Your task to perform on an android device: Search for flights from Zurich to Helsinki Image 0: 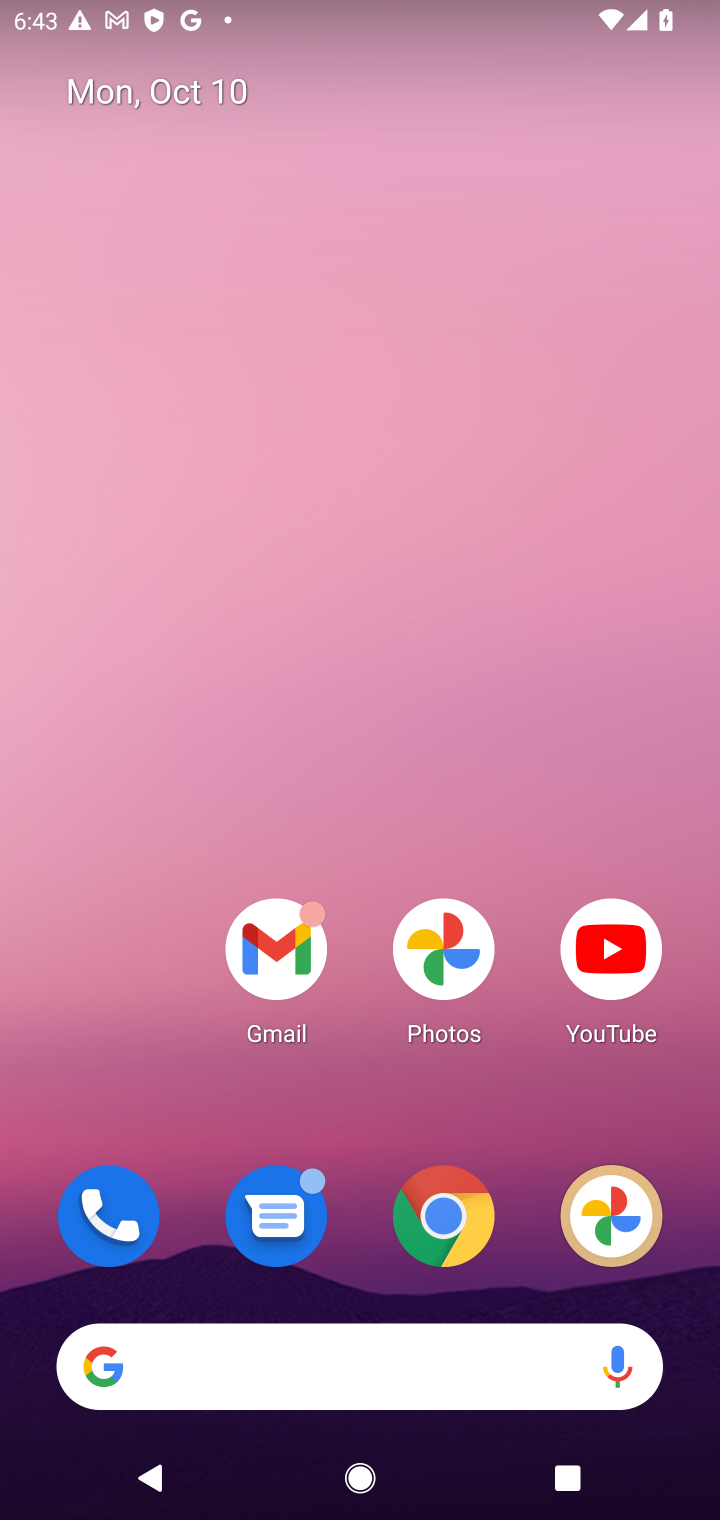
Step 0: drag from (403, 553) to (403, 198)
Your task to perform on an android device: Search for flights from Zurich to Helsinki Image 1: 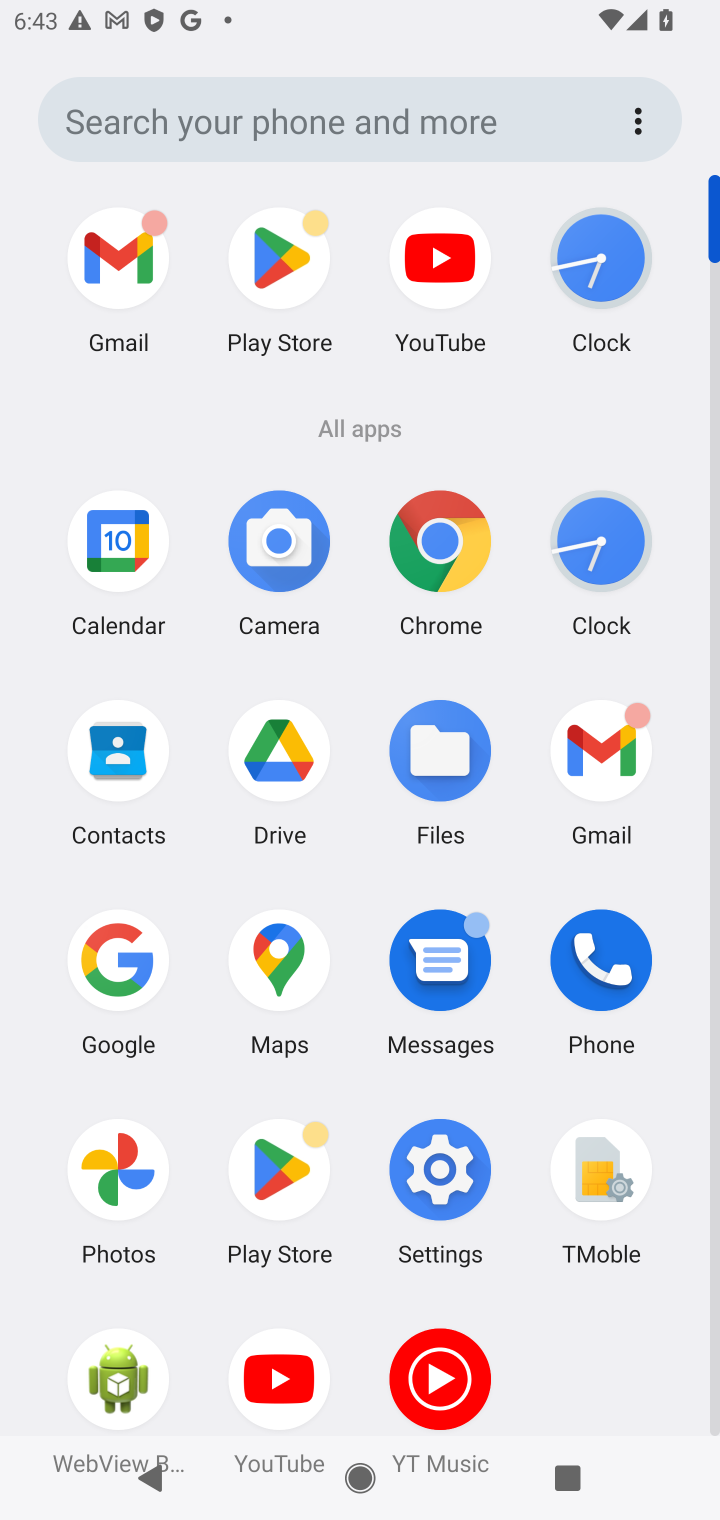
Step 1: click (125, 944)
Your task to perform on an android device: Search for flights from Zurich to Helsinki Image 2: 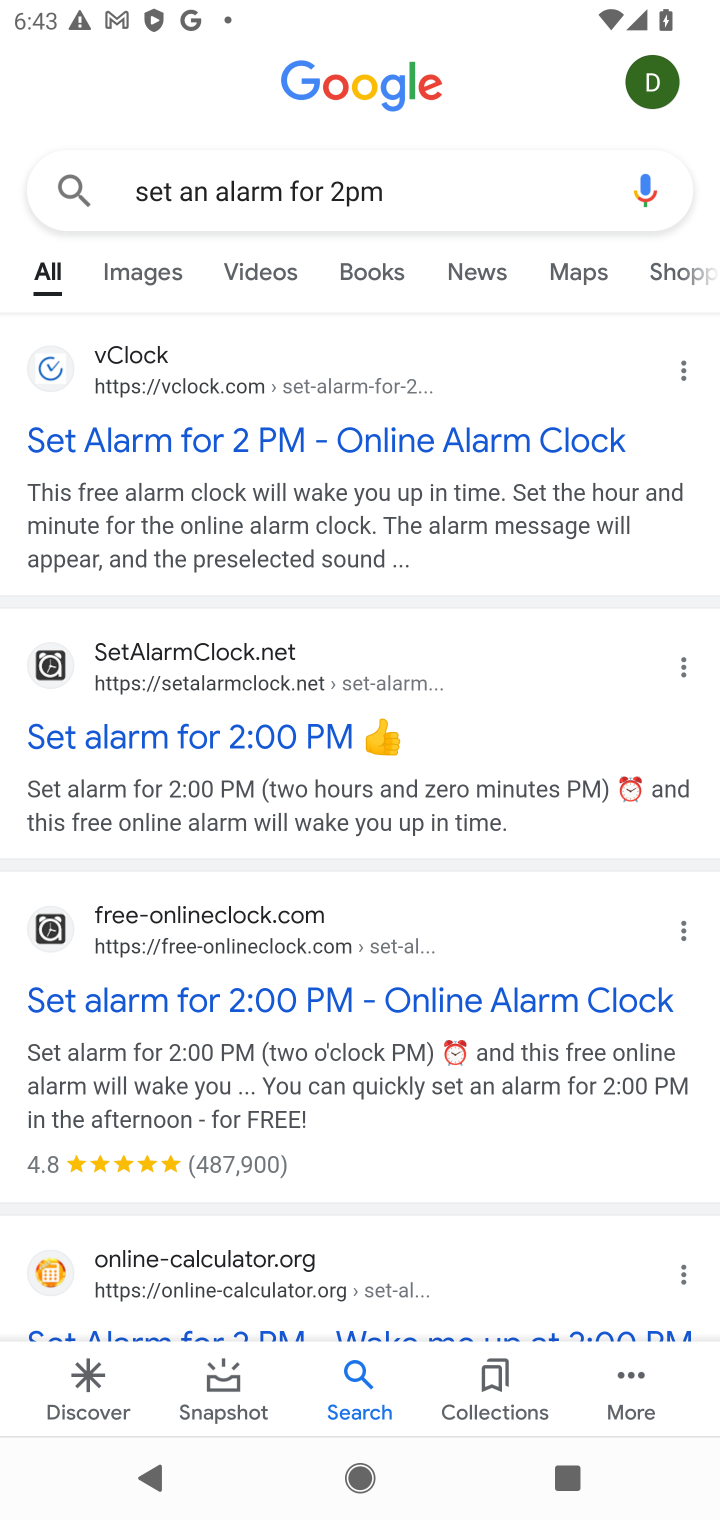
Step 2: click (476, 195)
Your task to perform on an android device: Search for flights from Zurich to Helsinki Image 3: 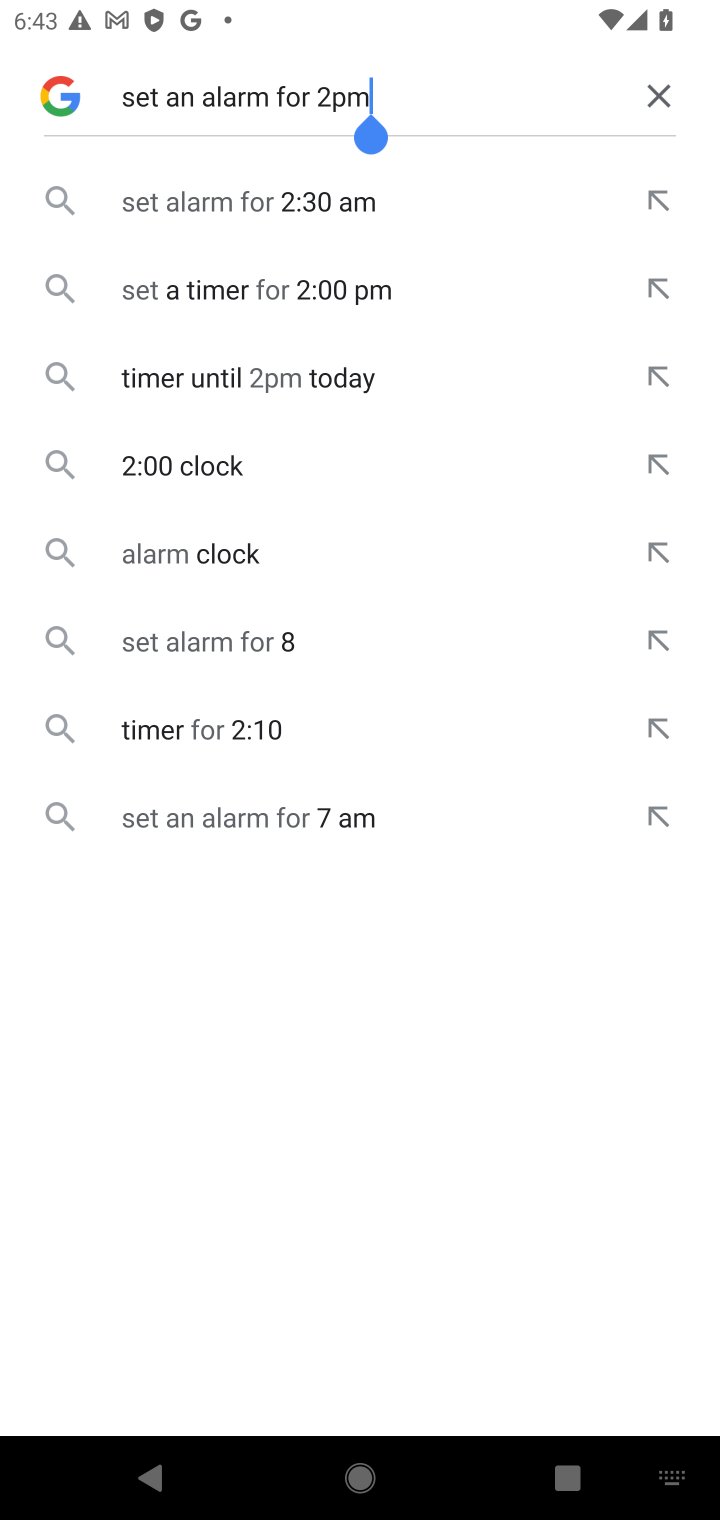
Step 3: click (656, 101)
Your task to perform on an android device: Search for flights from Zurich to Helsinki Image 4: 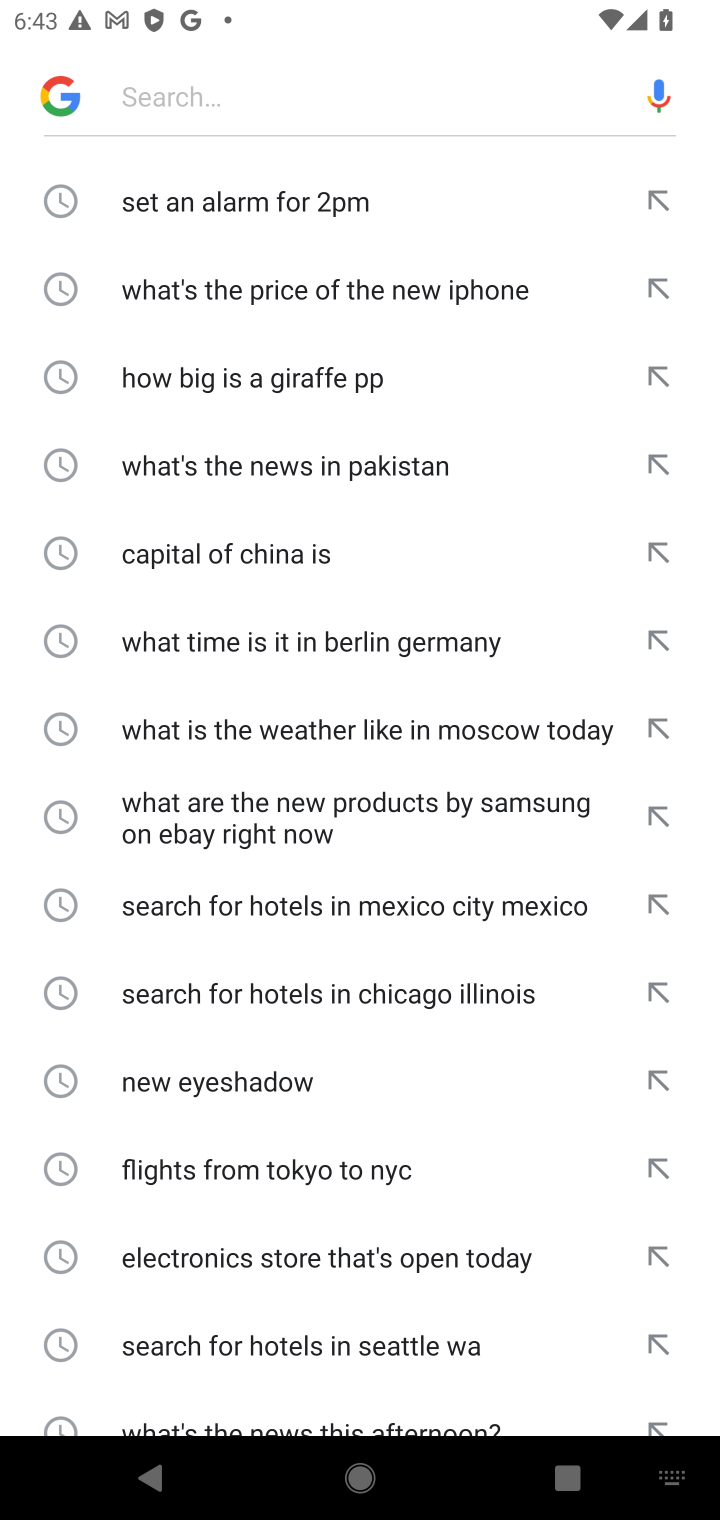
Step 4: type "Search for flights from Zurich to Helsinki"
Your task to perform on an android device: Search for flights from Zurich to Helsinki Image 5: 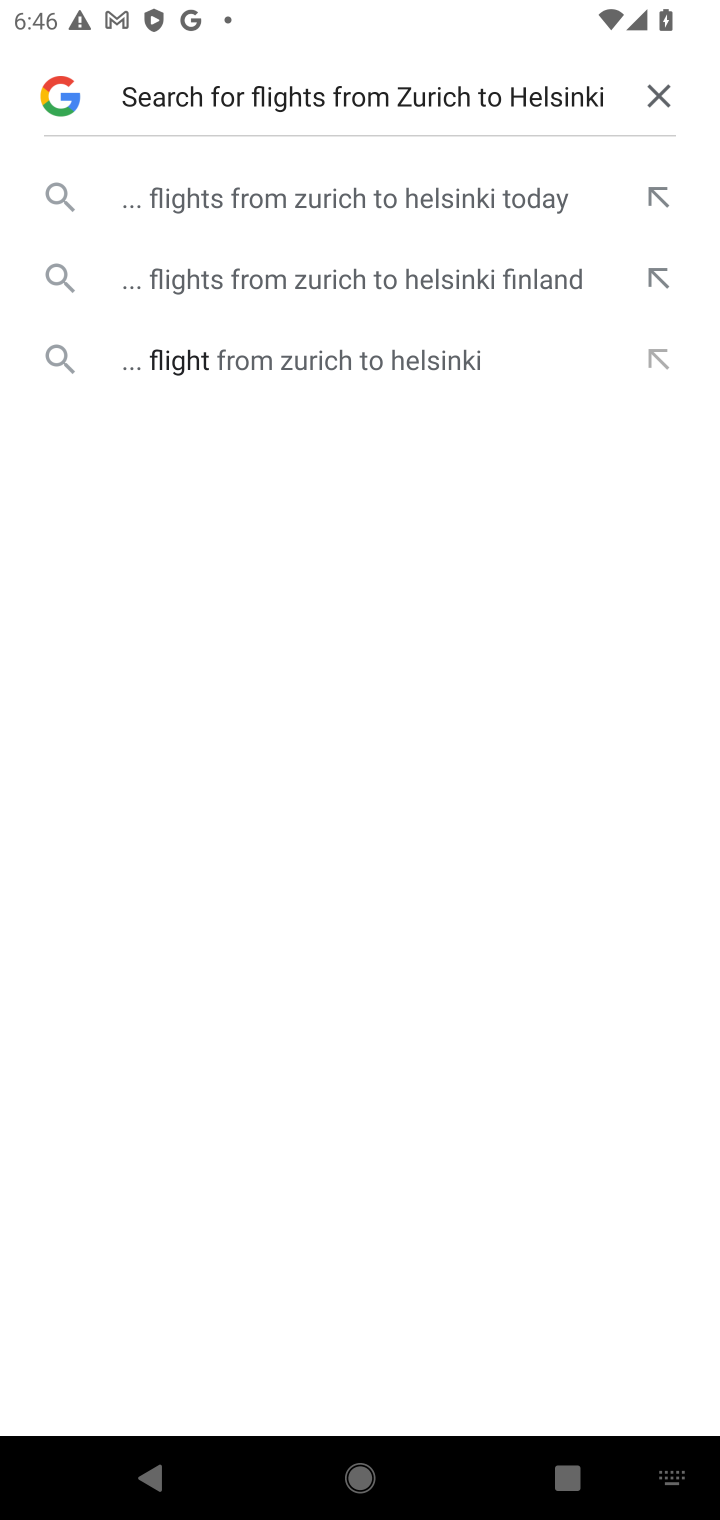
Step 5: click (468, 176)
Your task to perform on an android device: Search for flights from Zurich to Helsinki Image 6: 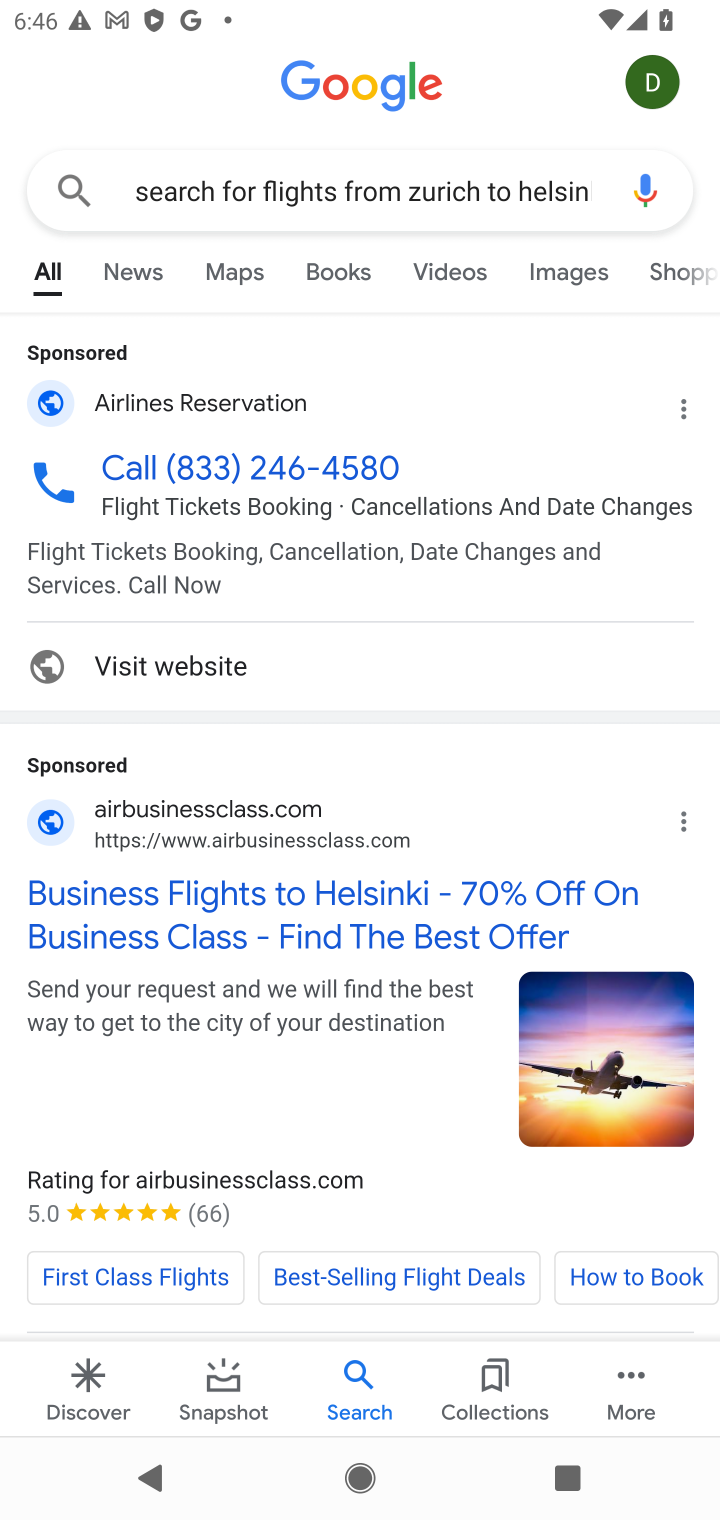
Step 6: click (267, 945)
Your task to perform on an android device: Search for flights from Zurich to Helsinki Image 7: 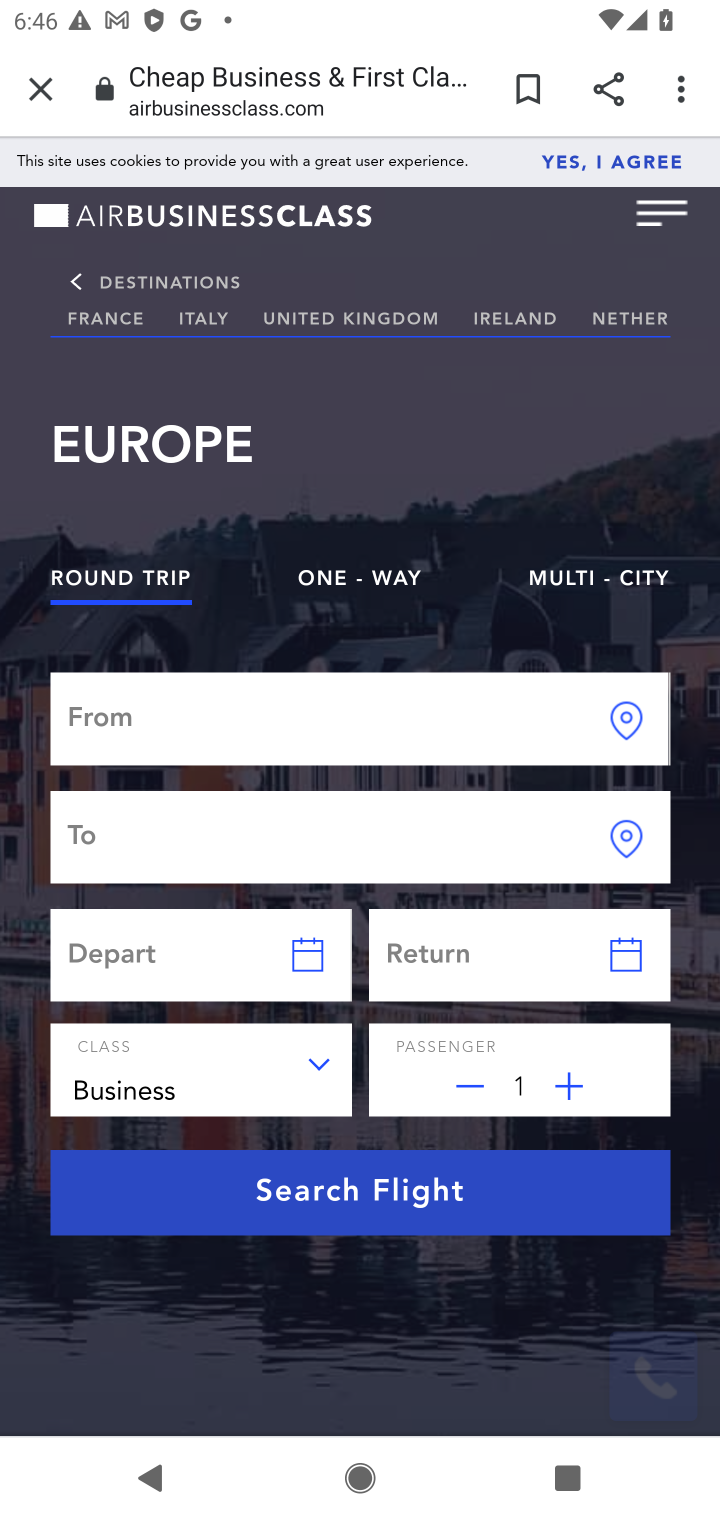
Step 7: task complete